Your task to perform on an android device: open app "Google Keep" Image 0: 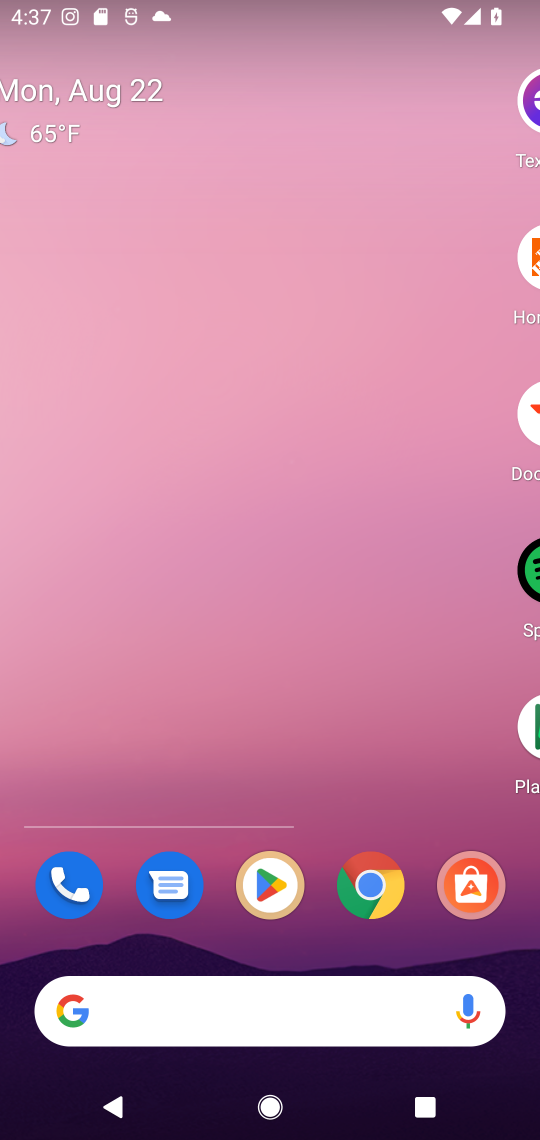
Step 0: press home button
Your task to perform on an android device: open app "Google Keep" Image 1: 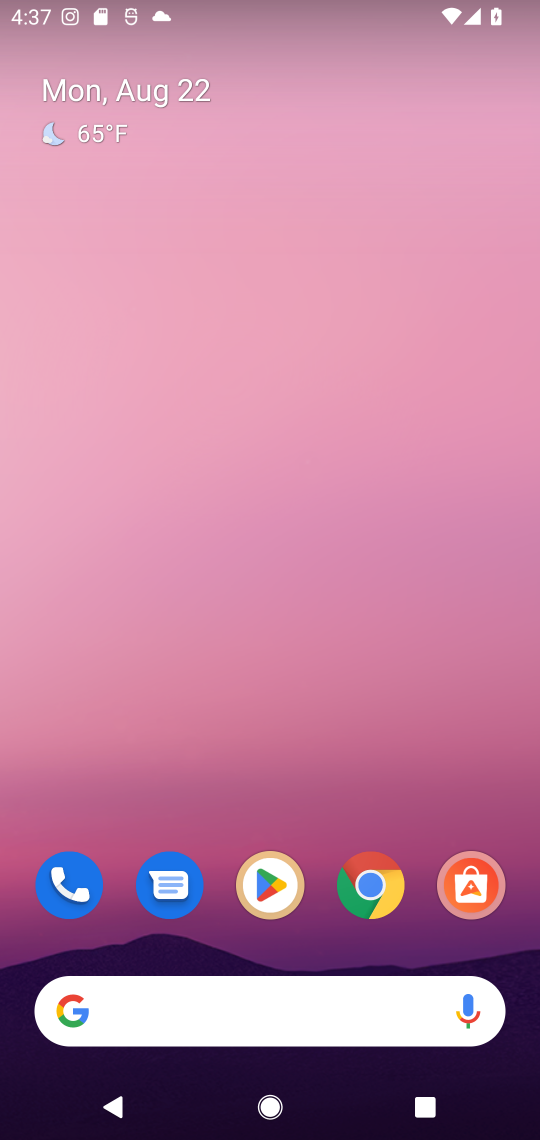
Step 1: click (265, 869)
Your task to perform on an android device: open app "Google Keep" Image 2: 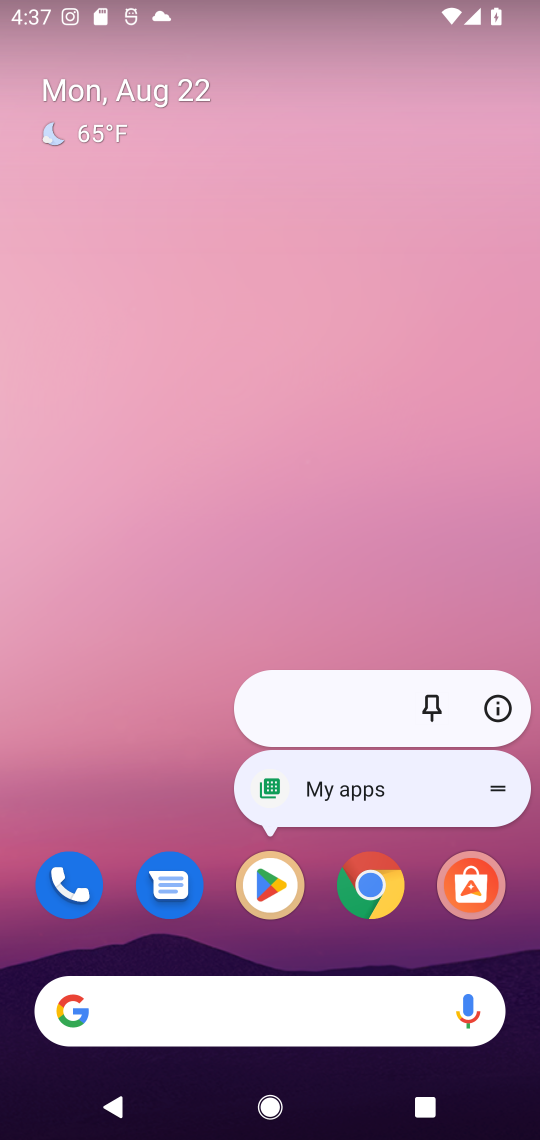
Step 2: click (270, 878)
Your task to perform on an android device: open app "Google Keep" Image 3: 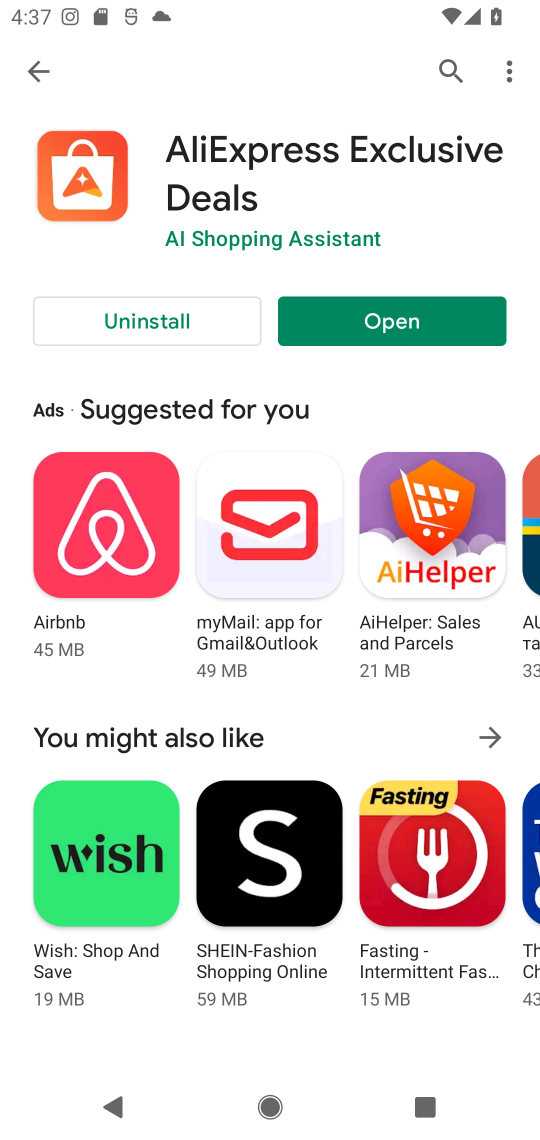
Step 3: click (454, 52)
Your task to perform on an android device: open app "Google Keep" Image 4: 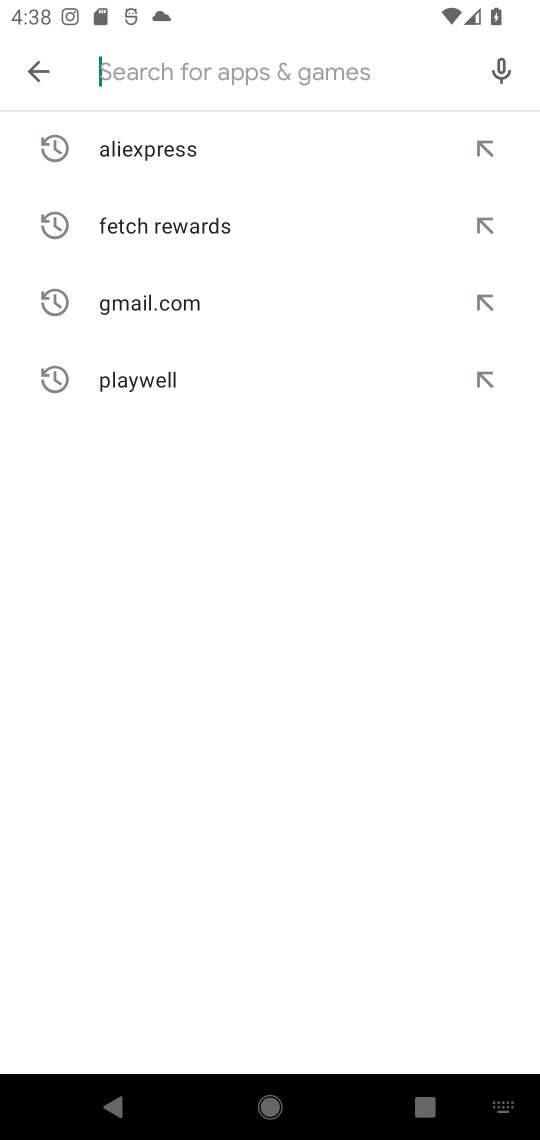
Step 4: click (142, 60)
Your task to perform on an android device: open app "Google Keep" Image 5: 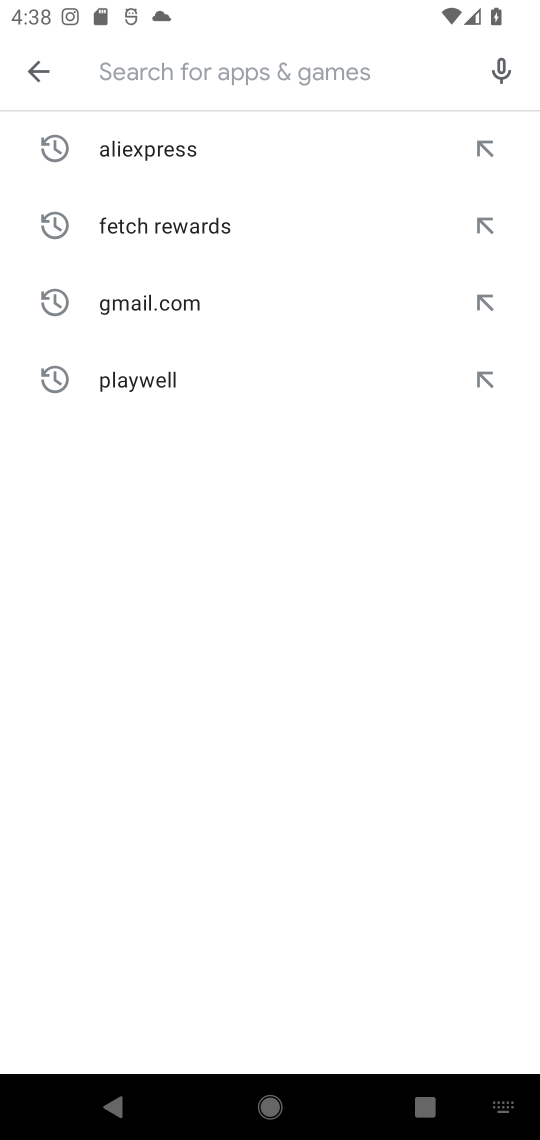
Step 5: type "Google Keep"
Your task to perform on an android device: open app "Google Keep" Image 6: 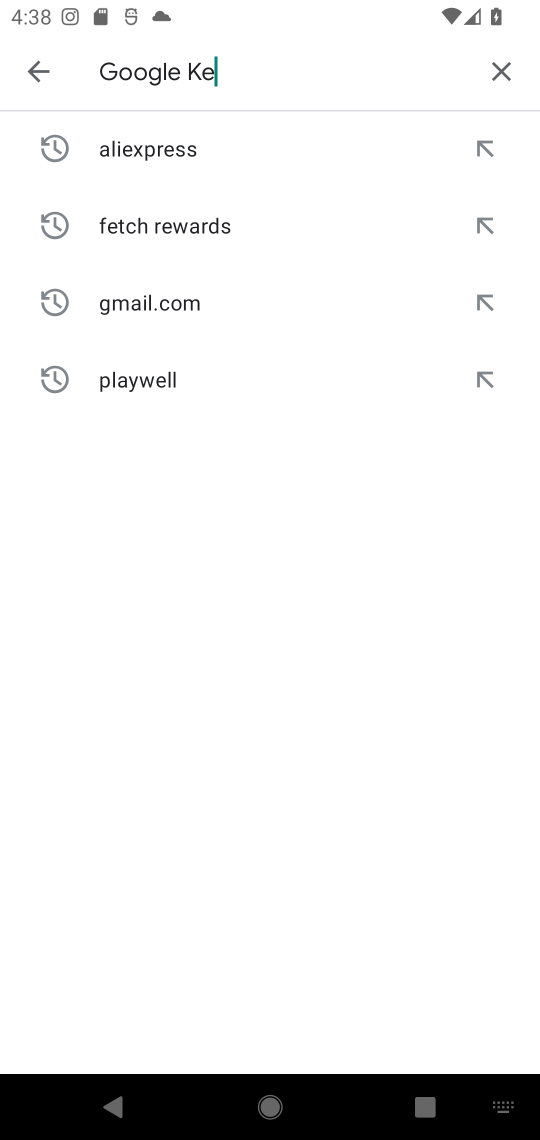
Step 6: type ""
Your task to perform on an android device: open app "Google Keep" Image 7: 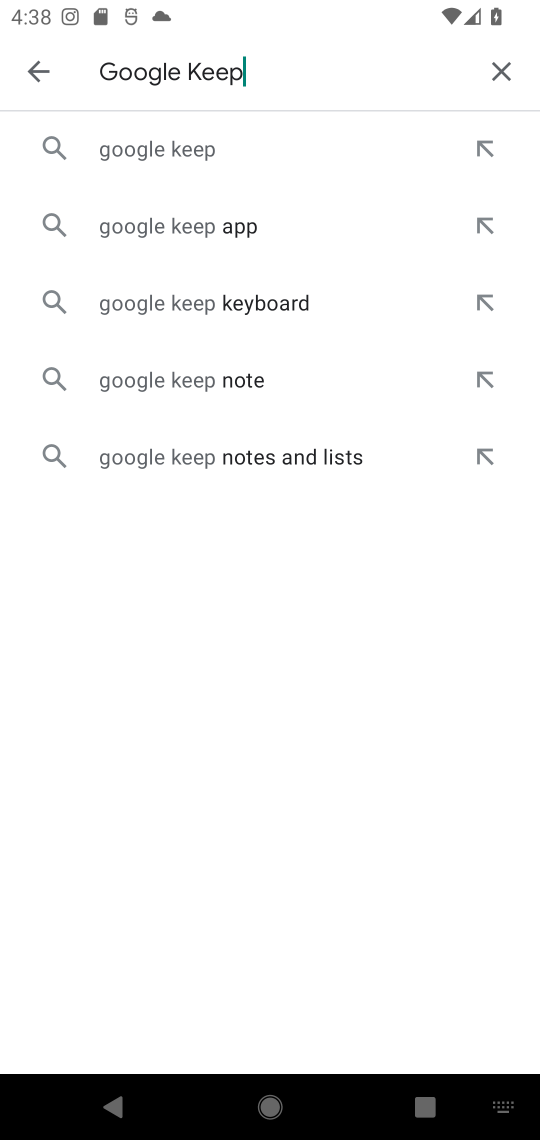
Step 7: click (232, 140)
Your task to perform on an android device: open app "Google Keep" Image 8: 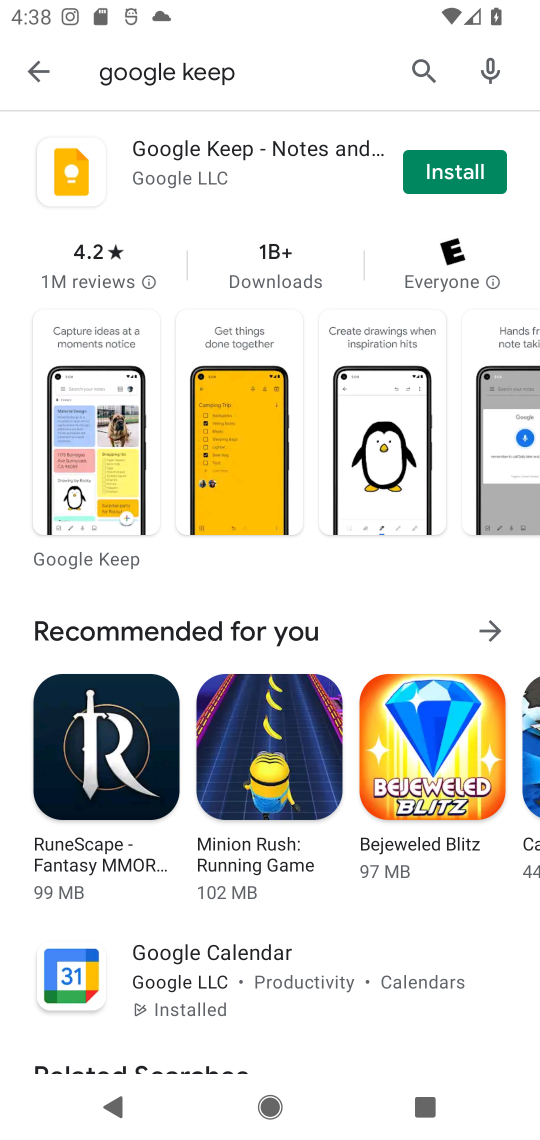
Step 8: click (437, 172)
Your task to perform on an android device: open app "Google Keep" Image 9: 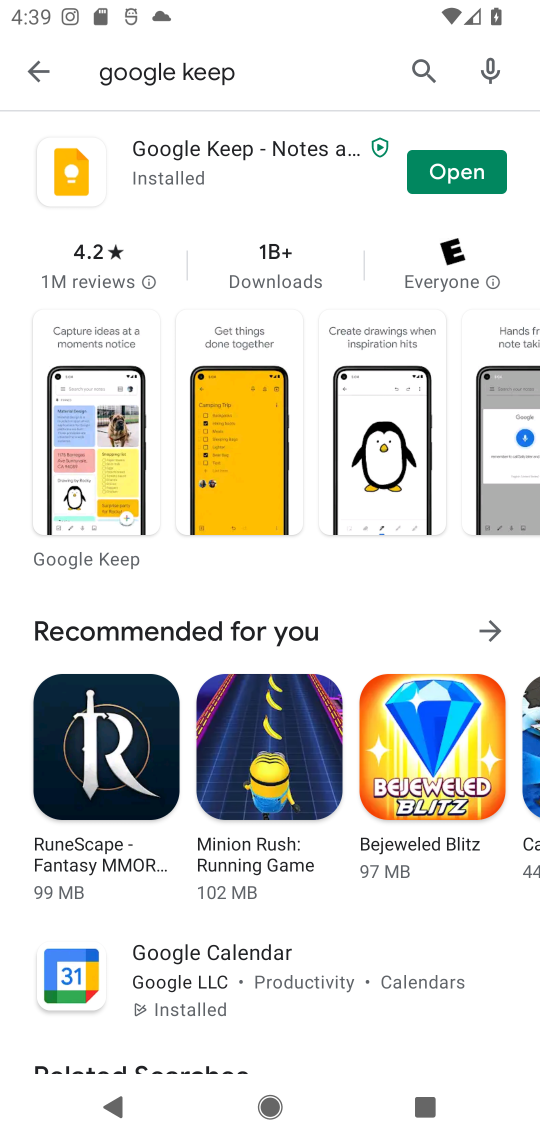
Step 9: click (474, 167)
Your task to perform on an android device: open app "Google Keep" Image 10: 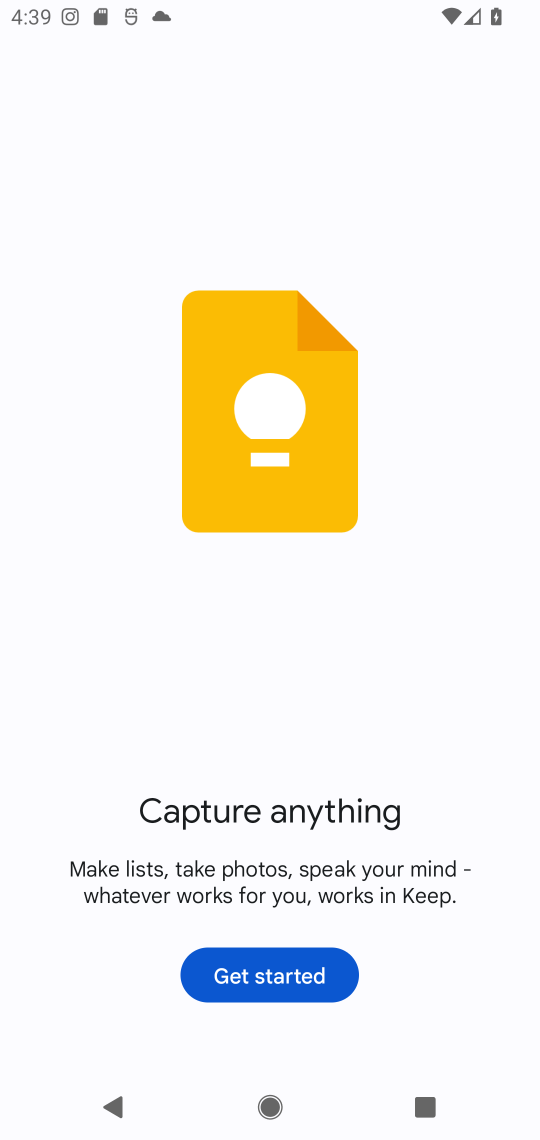
Step 10: click (271, 971)
Your task to perform on an android device: open app "Google Keep" Image 11: 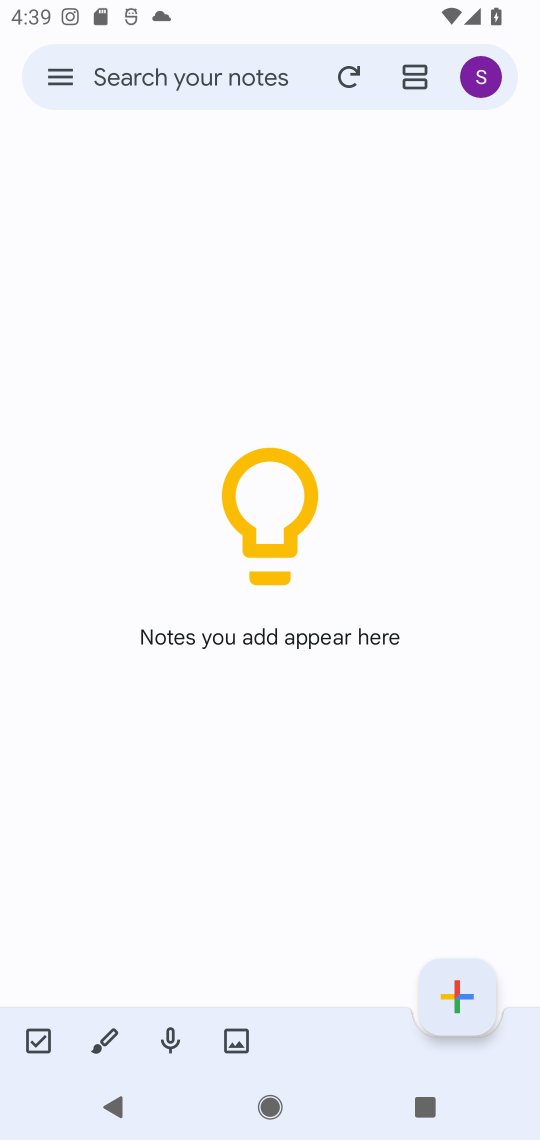
Step 11: task complete